Your task to perform on an android device: manage bookmarks in the chrome app Image 0: 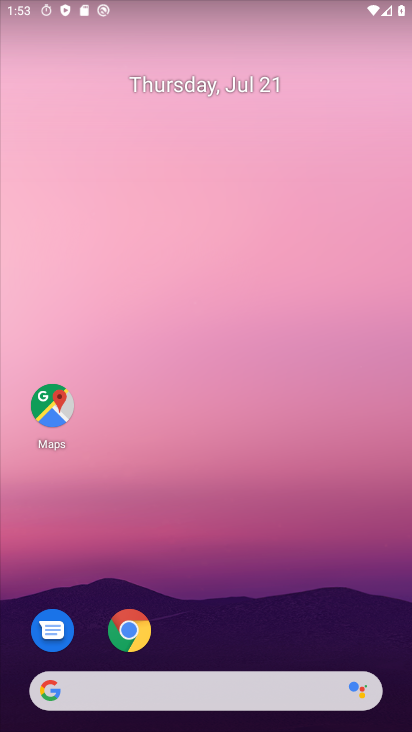
Step 0: click (129, 627)
Your task to perform on an android device: manage bookmarks in the chrome app Image 1: 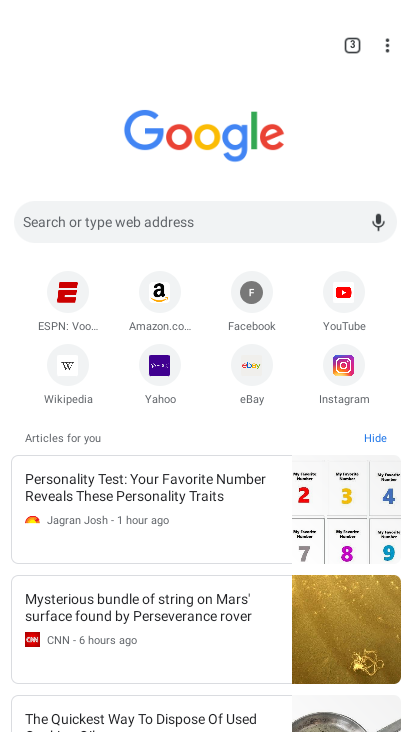
Step 1: click (382, 47)
Your task to perform on an android device: manage bookmarks in the chrome app Image 2: 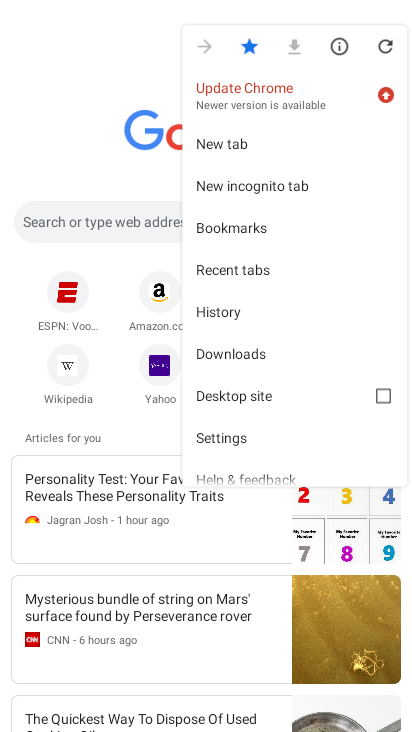
Step 2: click (248, 228)
Your task to perform on an android device: manage bookmarks in the chrome app Image 3: 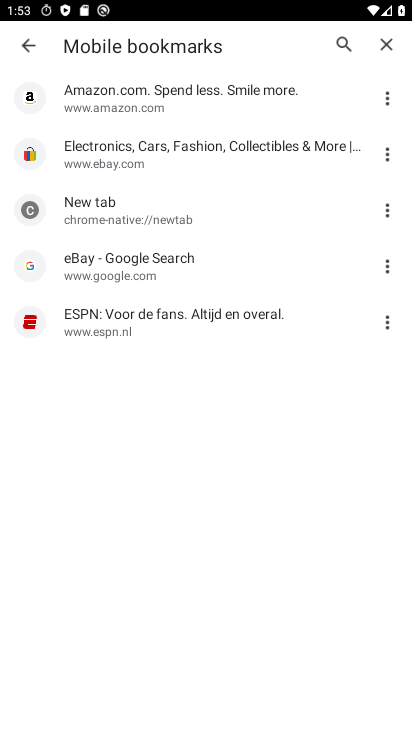
Step 3: click (382, 268)
Your task to perform on an android device: manage bookmarks in the chrome app Image 4: 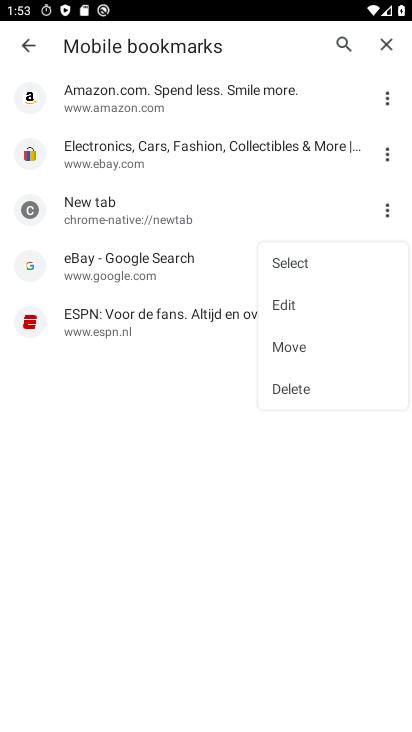
Step 4: click (289, 394)
Your task to perform on an android device: manage bookmarks in the chrome app Image 5: 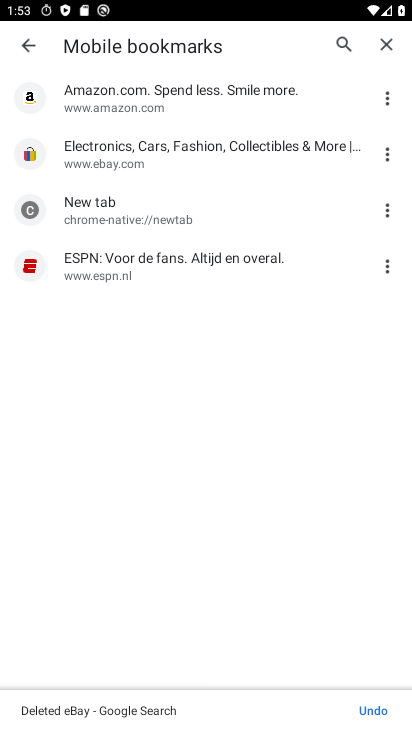
Step 5: task complete